Your task to perform on an android device: toggle improve location accuracy Image 0: 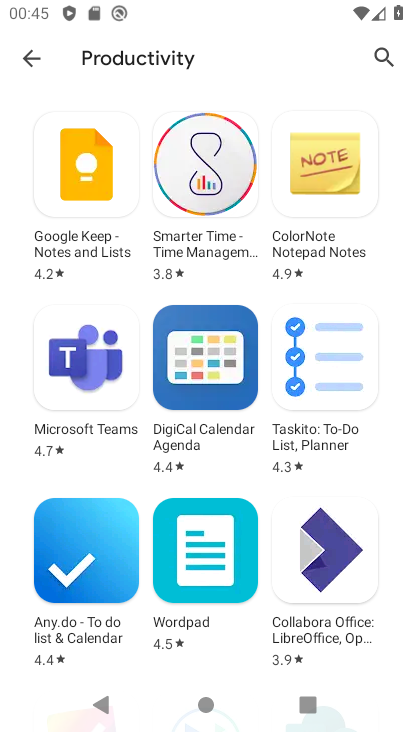
Step 0: press home button
Your task to perform on an android device: toggle improve location accuracy Image 1: 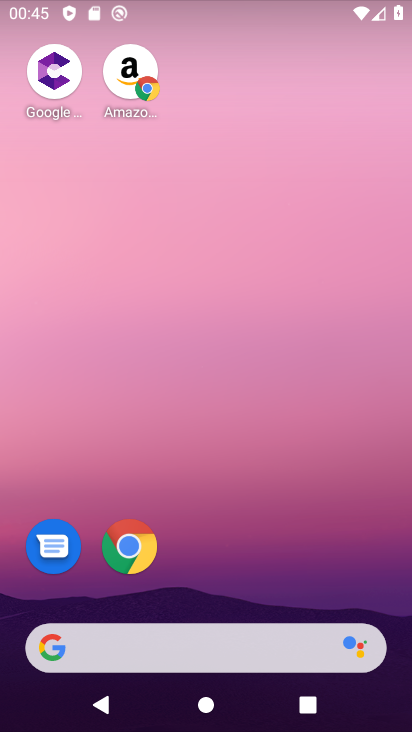
Step 1: drag from (218, 682) to (206, 72)
Your task to perform on an android device: toggle improve location accuracy Image 2: 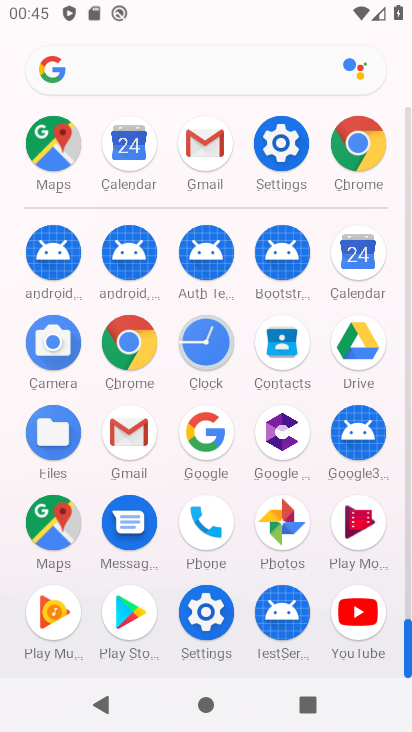
Step 2: click (284, 154)
Your task to perform on an android device: toggle improve location accuracy Image 3: 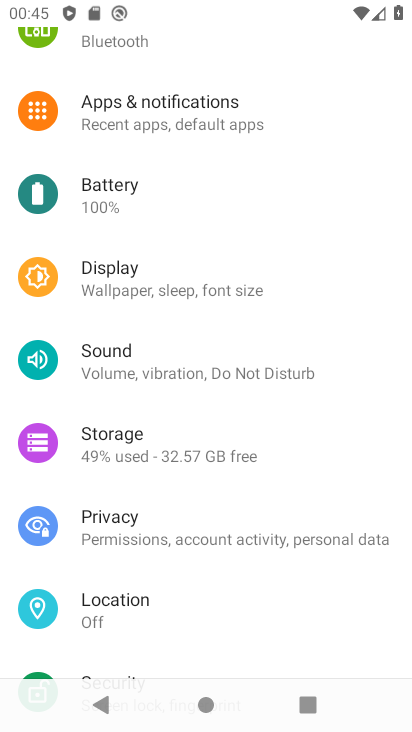
Step 3: click (166, 606)
Your task to perform on an android device: toggle improve location accuracy Image 4: 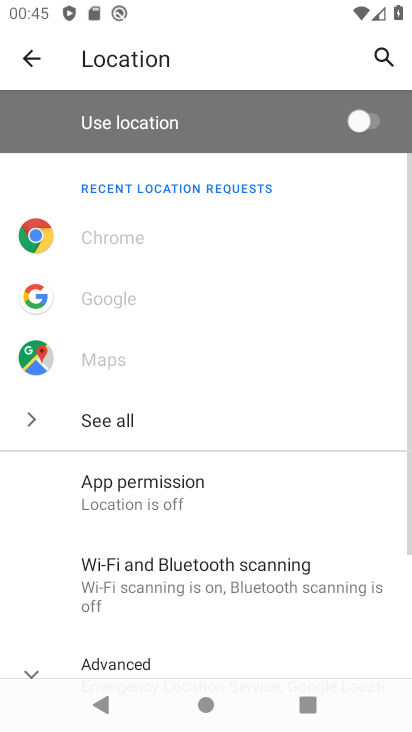
Step 4: drag from (166, 606) to (193, 169)
Your task to perform on an android device: toggle improve location accuracy Image 5: 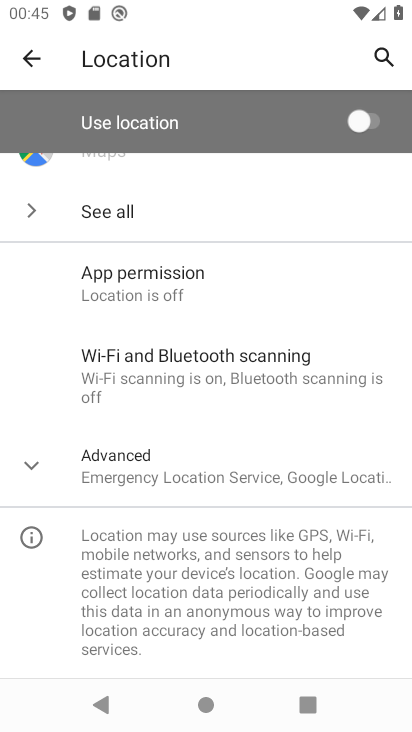
Step 5: click (182, 461)
Your task to perform on an android device: toggle improve location accuracy Image 6: 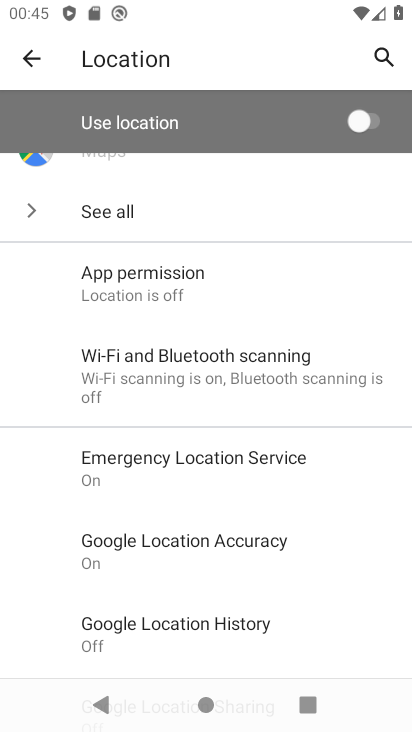
Step 6: click (235, 549)
Your task to perform on an android device: toggle improve location accuracy Image 7: 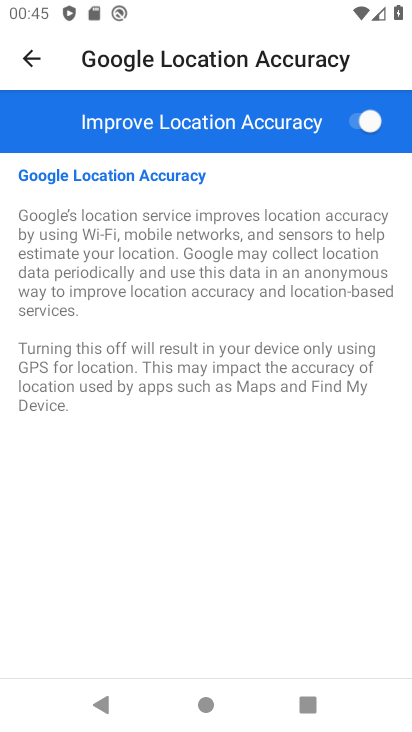
Step 7: click (351, 121)
Your task to perform on an android device: toggle improve location accuracy Image 8: 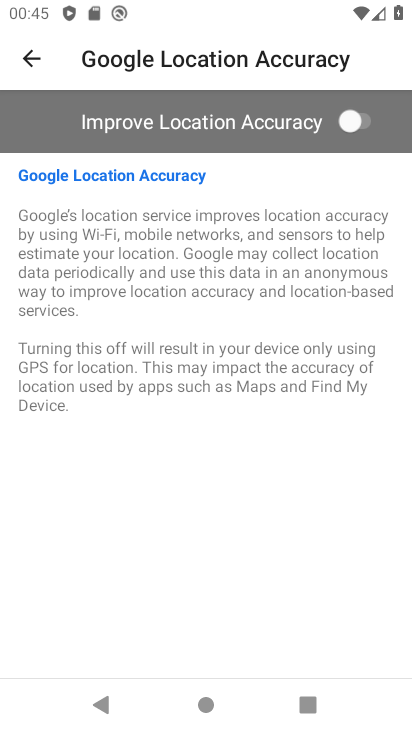
Step 8: task complete